Your task to perform on an android device: clear history in the chrome app Image 0: 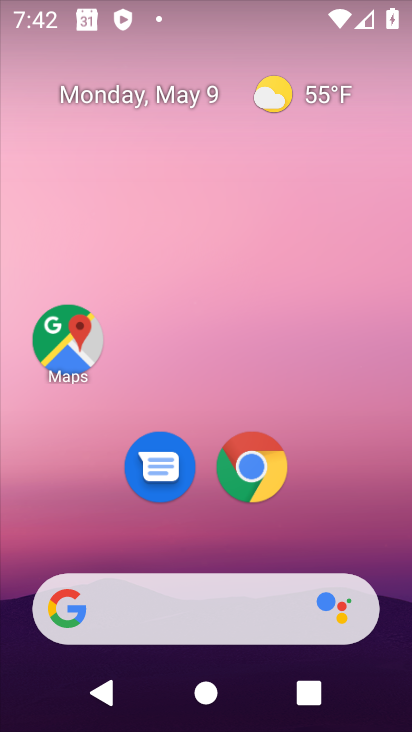
Step 0: click (250, 476)
Your task to perform on an android device: clear history in the chrome app Image 1: 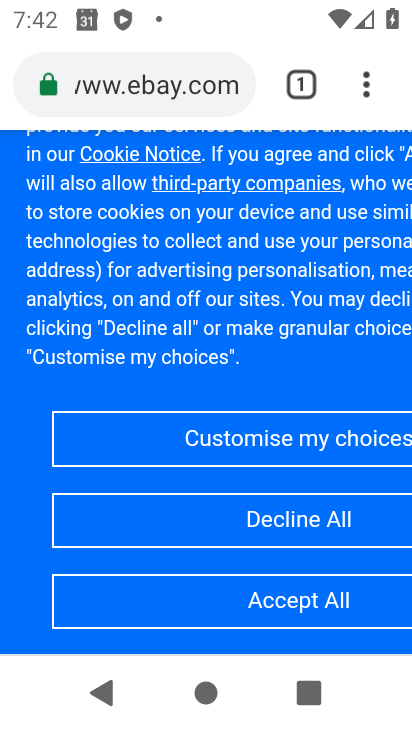
Step 1: drag from (368, 89) to (135, 529)
Your task to perform on an android device: clear history in the chrome app Image 2: 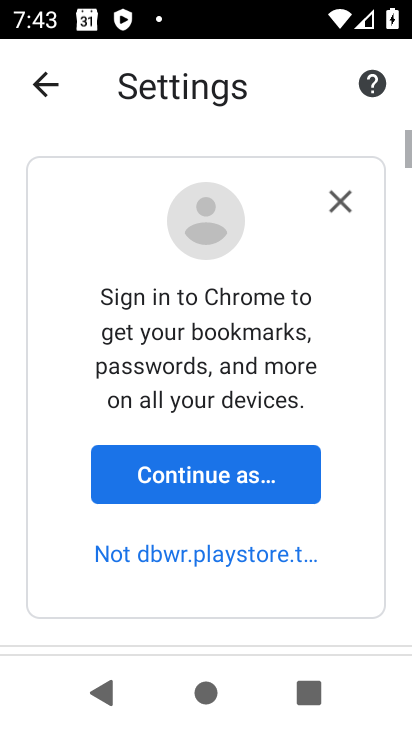
Step 2: drag from (173, 578) to (175, 125)
Your task to perform on an android device: clear history in the chrome app Image 3: 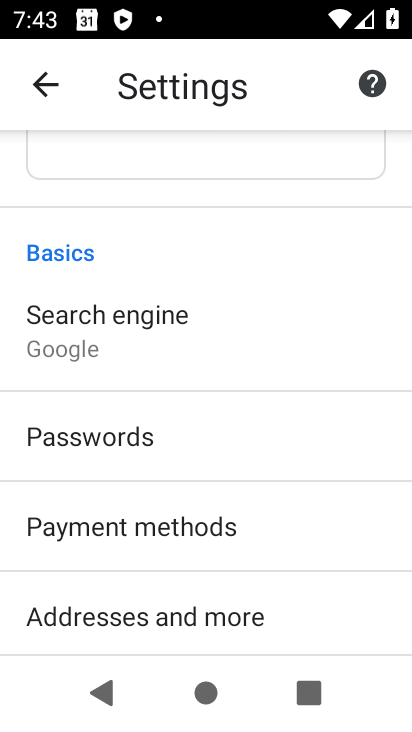
Step 3: drag from (156, 596) to (166, 212)
Your task to perform on an android device: clear history in the chrome app Image 4: 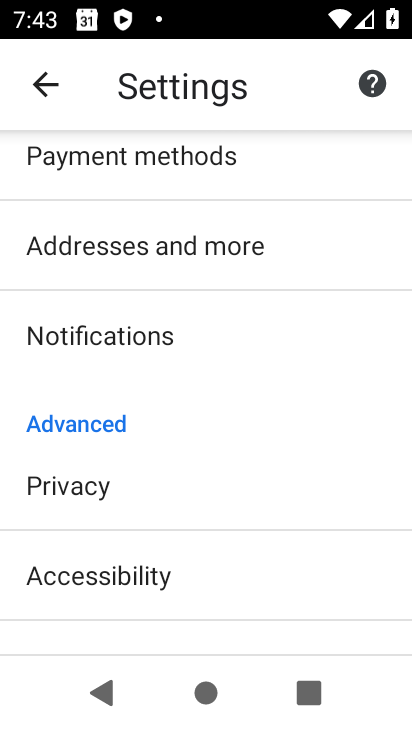
Step 4: click (89, 495)
Your task to perform on an android device: clear history in the chrome app Image 5: 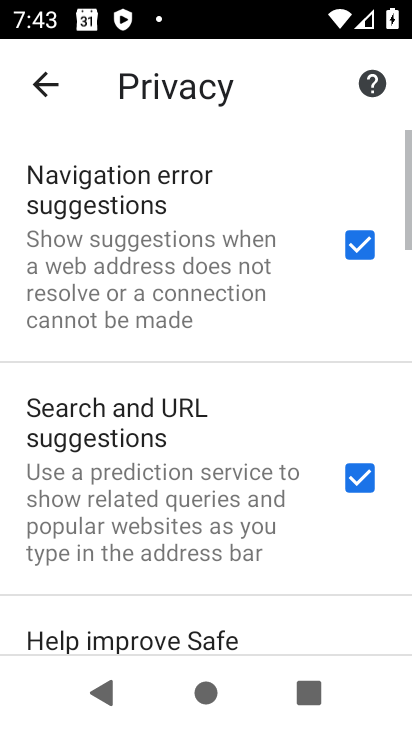
Step 5: drag from (162, 591) to (165, 255)
Your task to perform on an android device: clear history in the chrome app Image 6: 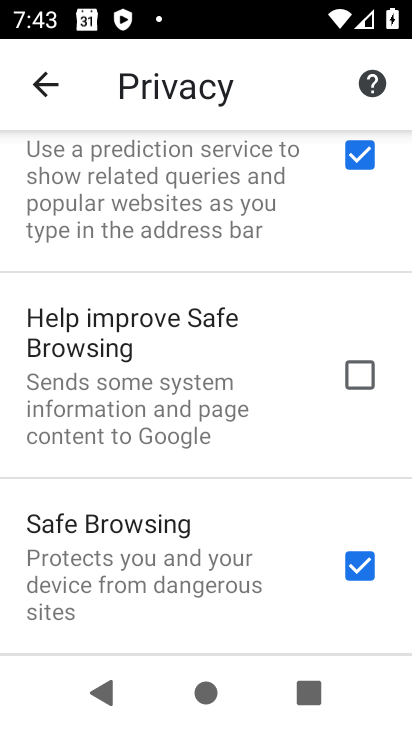
Step 6: drag from (158, 562) to (141, 167)
Your task to perform on an android device: clear history in the chrome app Image 7: 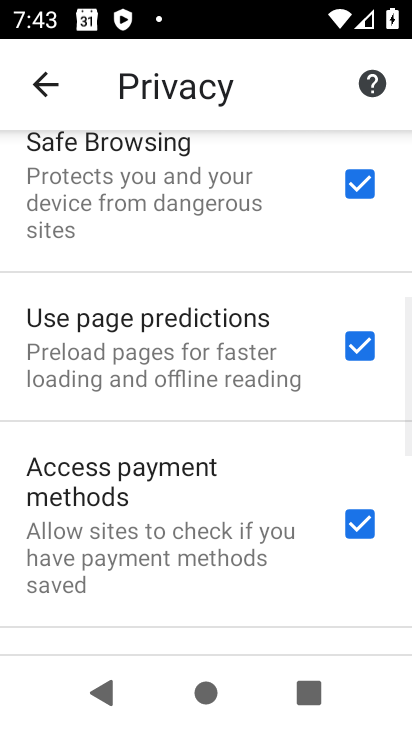
Step 7: drag from (171, 546) to (177, 235)
Your task to perform on an android device: clear history in the chrome app Image 8: 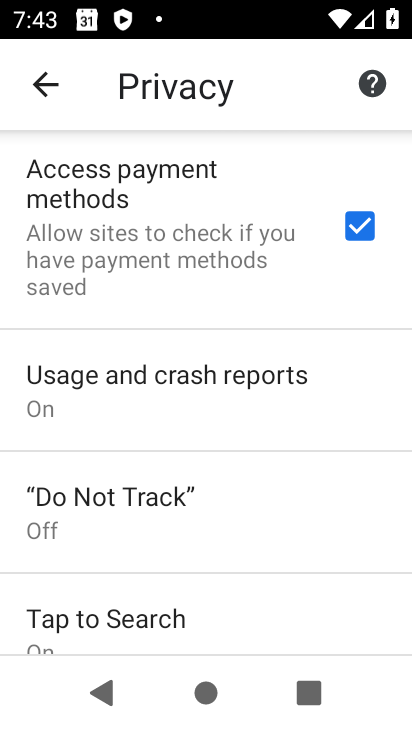
Step 8: drag from (149, 584) to (162, 271)
Your task to perform on an android device: clear history in the chrome app Image 9: 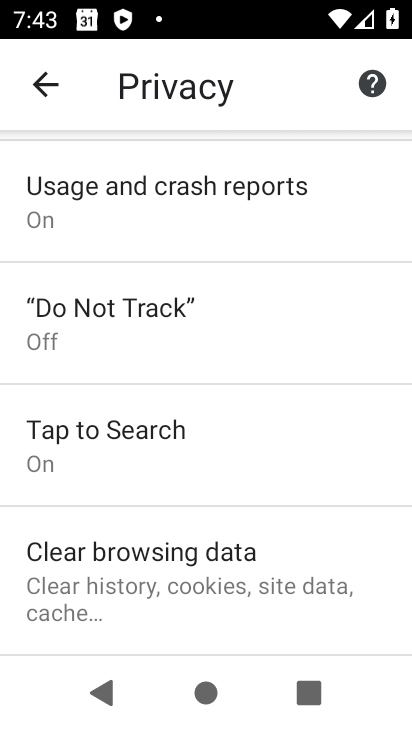
Step 9: click (151, 567)
Your task to perform on an android device: clear history in the chrome app Image 10: 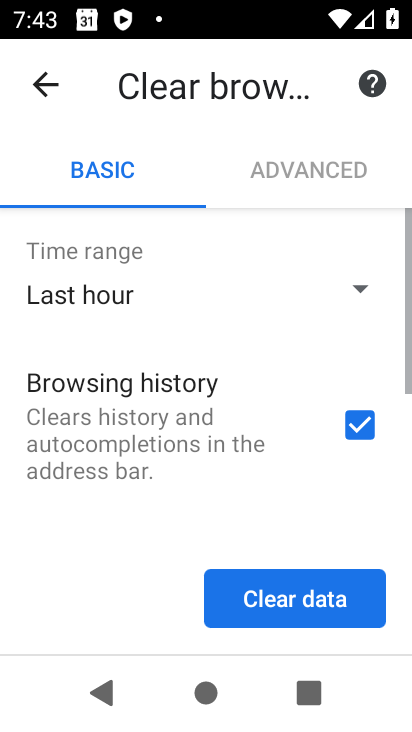
Step 10: drag from (203, 443) to (217, 257)
Your task to perform on an android device: clear history in the chrome app Image 11: 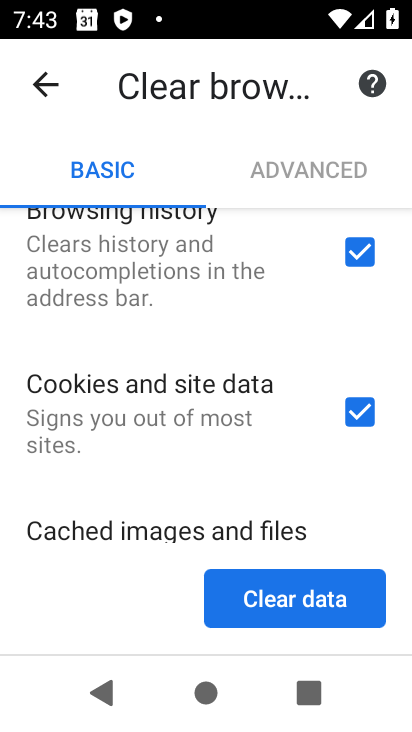
Step 11: click (353, 415)
Your task to perform on an android device: clear history in the chrome app Image 12: 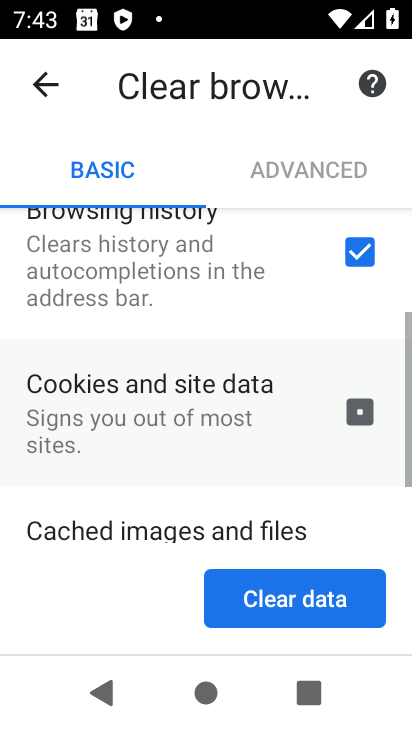
Step 12: drag from (200, 441) to (196, 292)
Your task to perform on an android device: clear history in the chrome app Image 13: 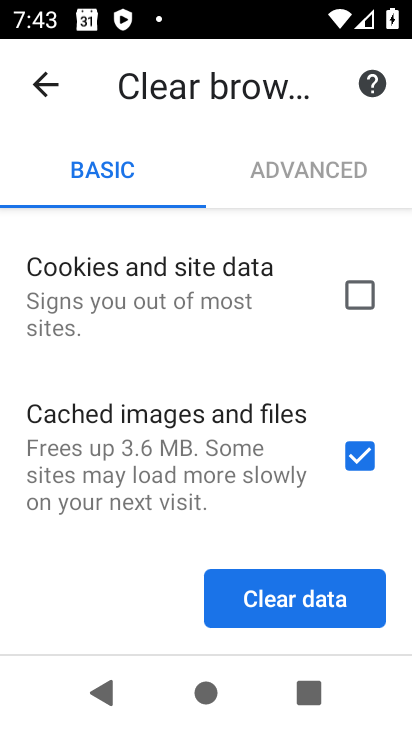
Step 13: click (349, 462)
Your task to perform on an android device: clear history in the chrome app Image 14: 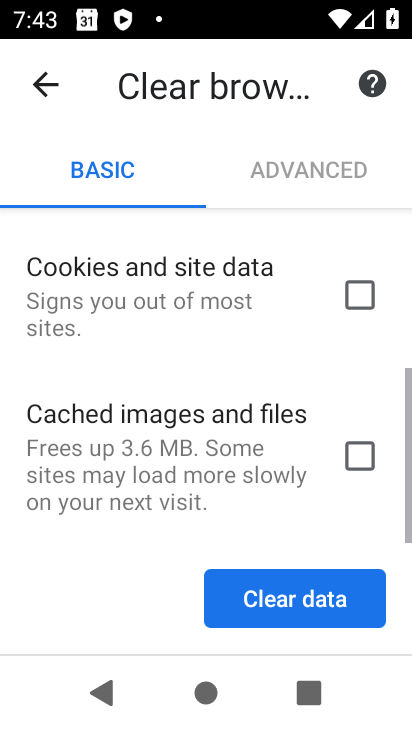
Step 14: click (308, 595)
Your task to perform on an android device: clear history in the chrome app Image 15: 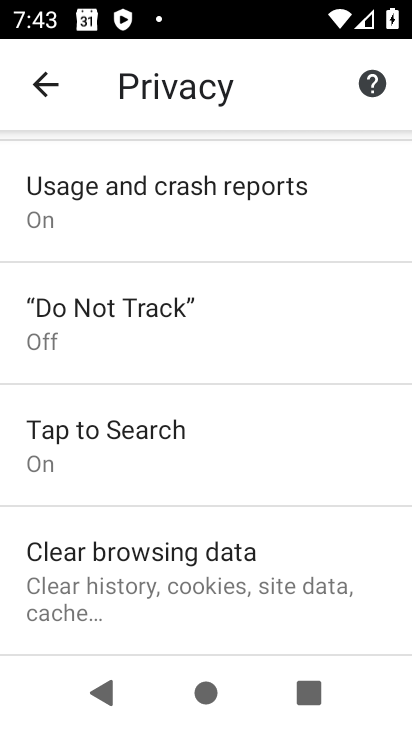
Step 15: task complete